Your task to perform on an android device: open chrome privacy settings Image 0: 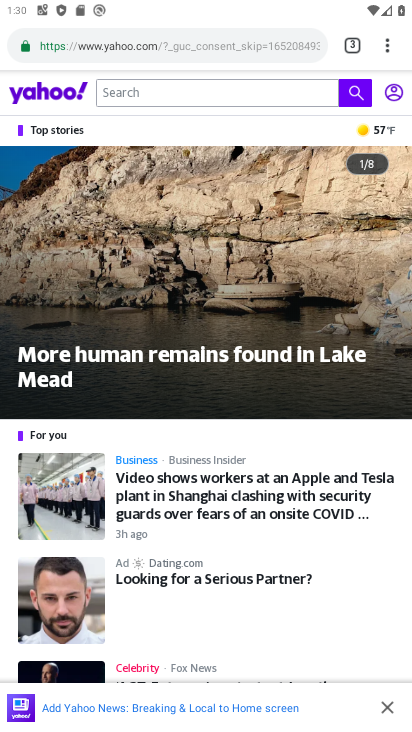
Step 0: press home button
Your task to perform on an android device: open chrome privacy settings Image 1: 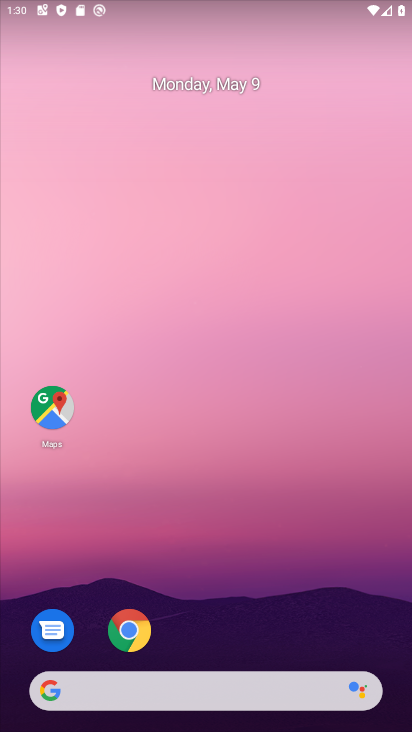
Step 1: drag from (232, 711) to (246, 349)
Your task to perform on an android device: open chrome privacy settings Image 2: 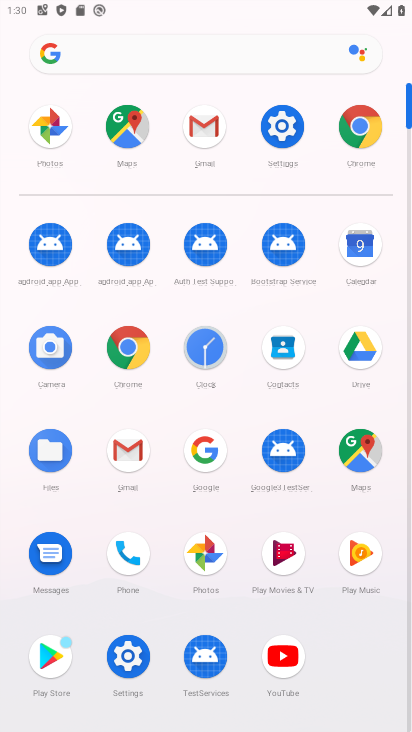
Step 2: click (274, 145)
Your task to perform on an android device: open chrome privacy settings Image 3: 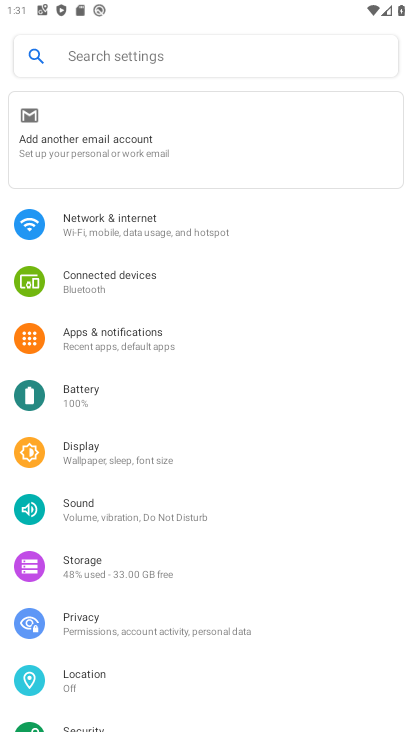
Step 3: click (115, 630)
Your task to perform on an android device: open chrome privacy settings Image 4: 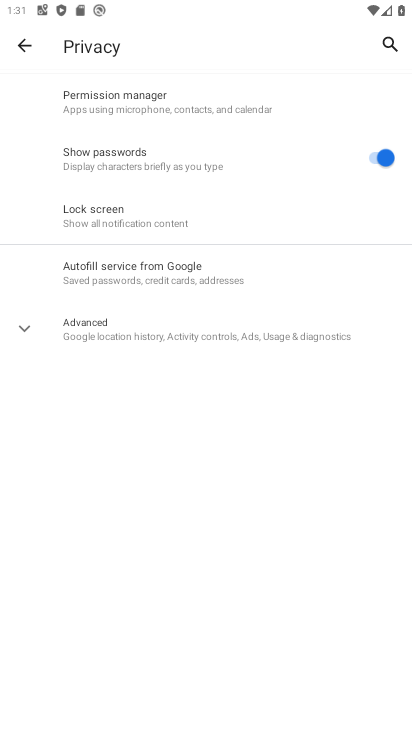
Step 4: press home button
Your task to perform on an android device: open chrome privacy settings Image 5: 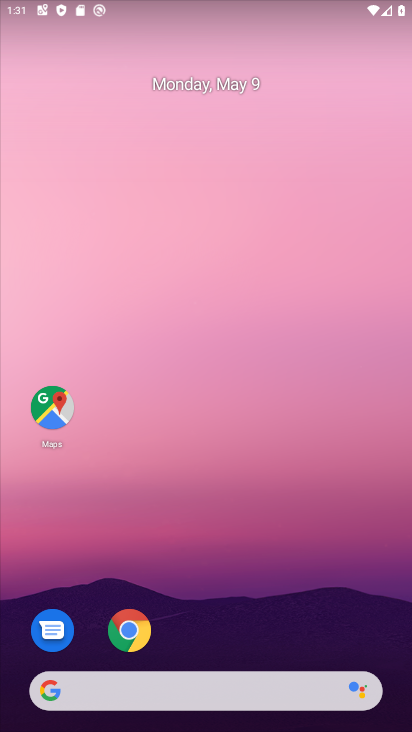
Step 5: drag from (247, 714) to (250, 363)
Your task to perform on an android device: open chrome privacy settings Image 6: 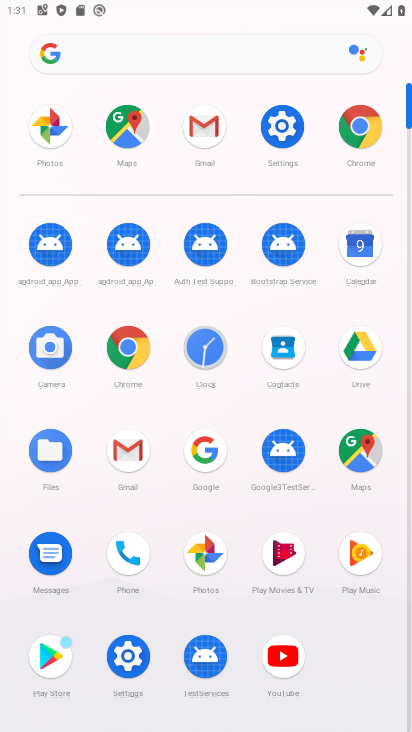
Step 6: click (128, 360)
Your task to perform on an android device: open chrome privacy settings Image 7: 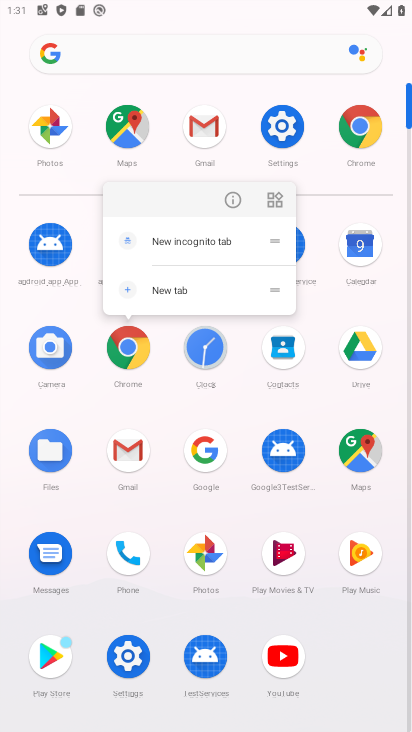
Step 7: click (128, 348)
Your task to perform on an android device: open chrome privacy settings Image 8: 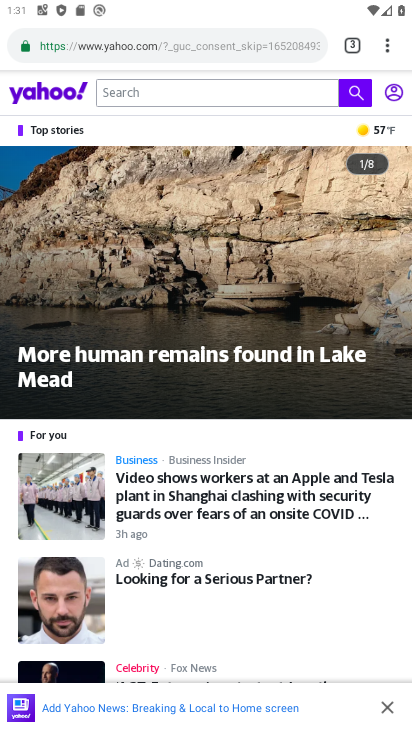
Step 8: click (383, 52)
Your task to perform on an android device: open chrome privacy settings Image 9: 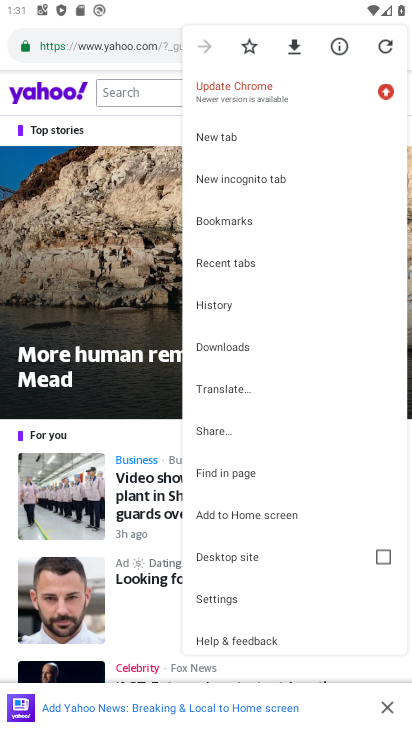
Step 9: click (214, 590)
Your task to perform on an android device: open chrome privacy settings Image 10: 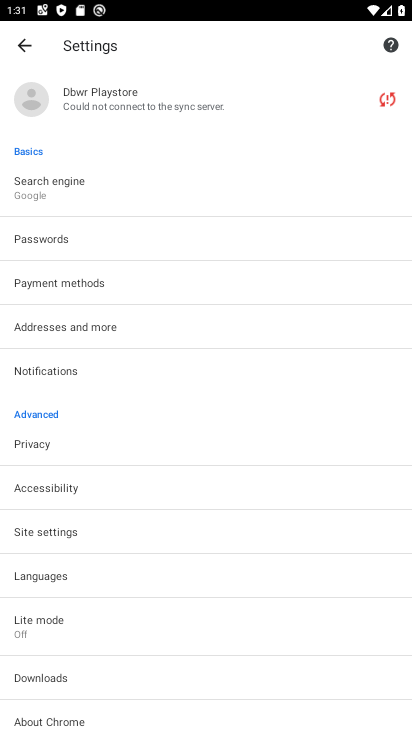
Step 10: click (36, 452)
Your task to perform on an android device: open chrome privacy settings Image 11: 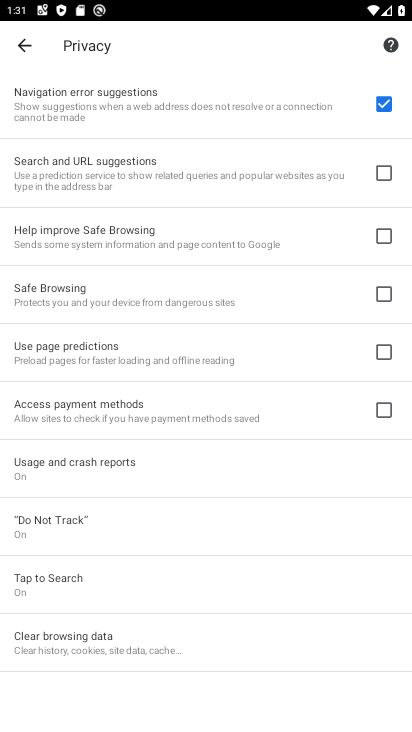
Step 11: task complete